Your task to perform on an android device: turn on translation in the chrome app Image 0: 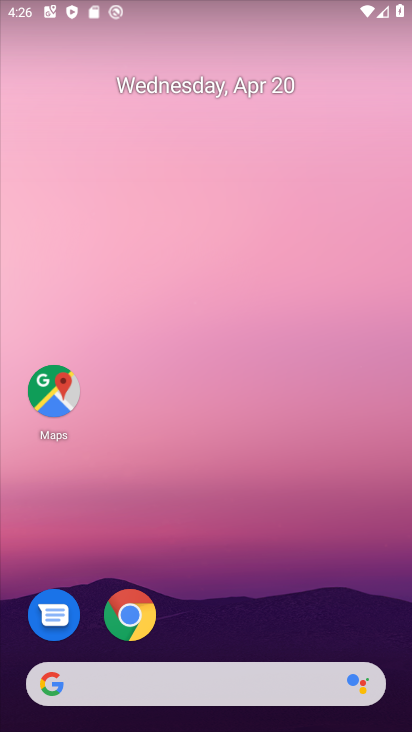
Step 0: click (140, 625)
Your task to perform on an android device: turn on translation in the chrome app Image 1: 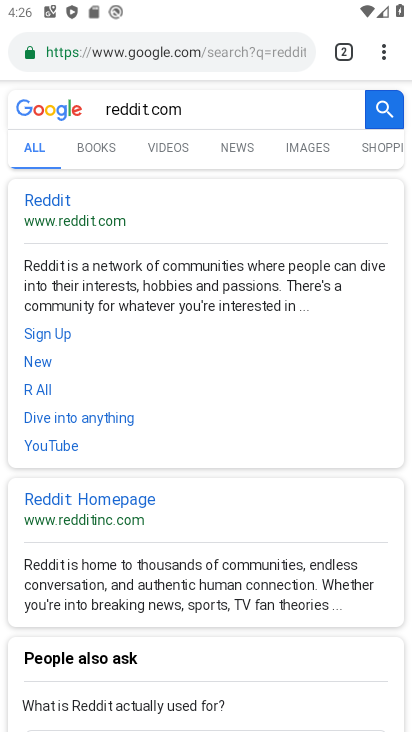
Step 1: click (386, 49)
Your task to perform on an android device: turn on translation in the chrome app Image 2: 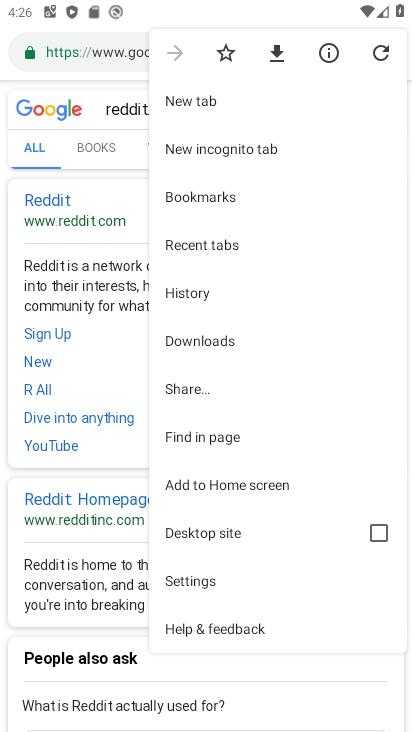
Step 2: click (206, 578)
Your task to perform on an android device: turn on translation in the chrome app Image 3: 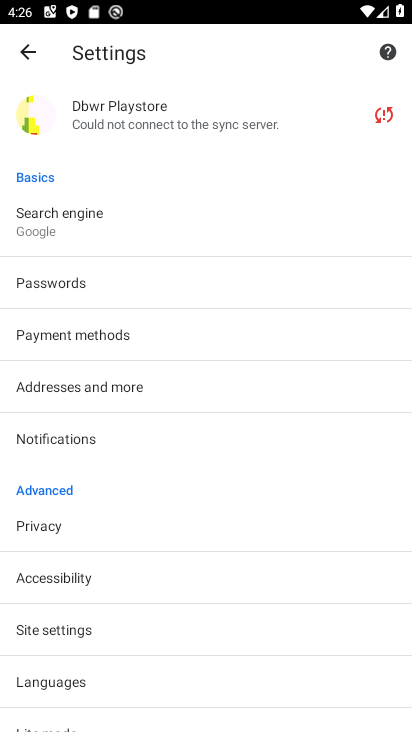
Step 3: click (58, 685)
Your task to perform on an android device: turn on translation in the chrome app Image 4: 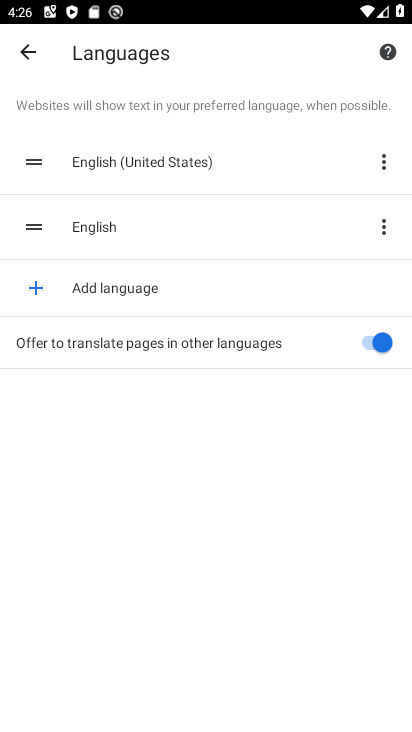
Step 4: task complete